Your task to perform on an android device: Go to Yahoo.com Image 0: 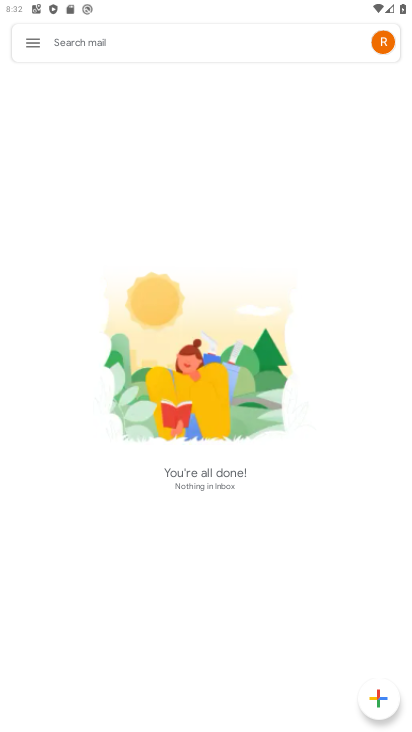
Step 0: click (189, 649)
Your task to perform on an android device: Go to Yahoo.com Image 1: 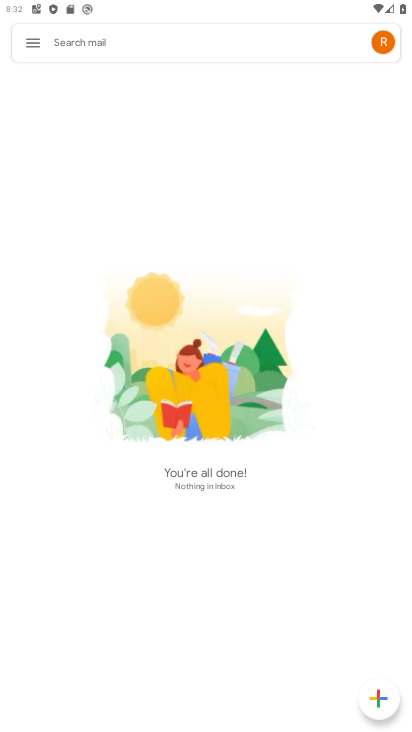
Step 1: press home button
Your task to perform on an android device: Go to Yahoo.com Image 2: 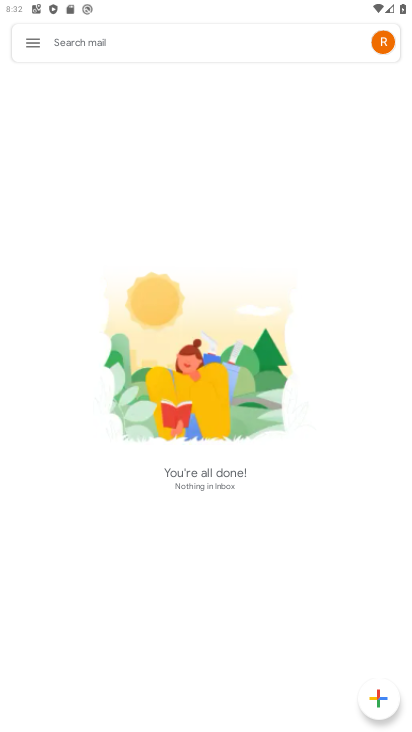
Step 2: click (351, 46)
Your task to perform on an android device: Go to Yahoo.com Image 3: 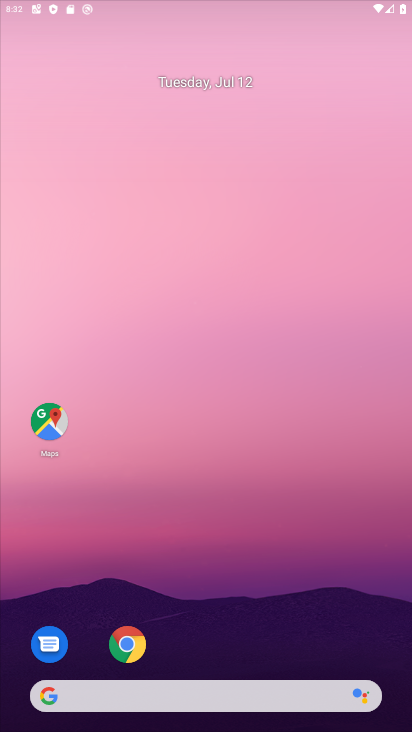
Step 3: drag from (177, 593) to (256, 37)
Your task to perform on an android device: Go to Yahoo.com Image 4: 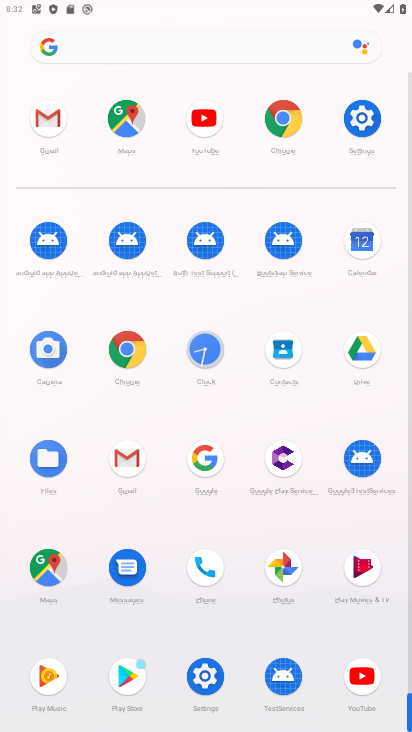
Step 4: click (283, 113)
Your task to perform on an android device: Go to Yahoo.com Image 5: 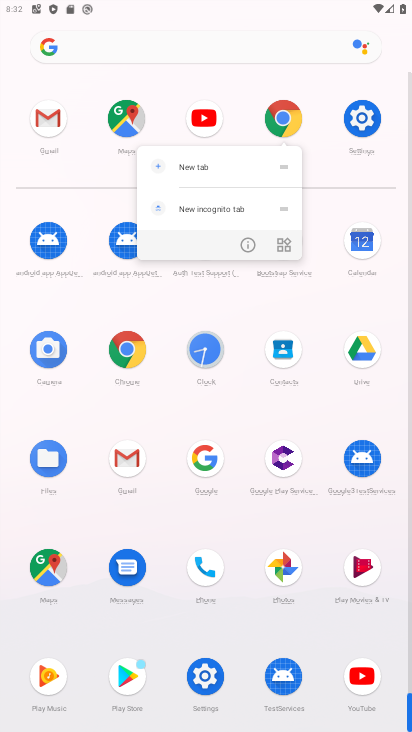
Step 5: click (248, 241)
Your task to perform on an android device: Go to Yahoo.com Image 6: 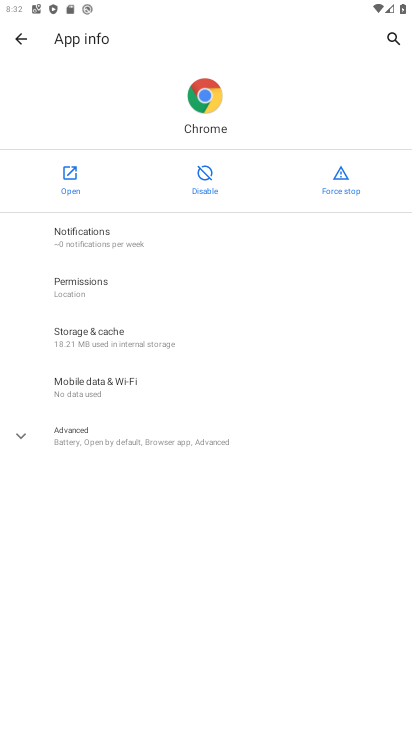
Step 6: click (60, 184)
Your task to perform on an android device: Go to Yahoo.com Image 7: 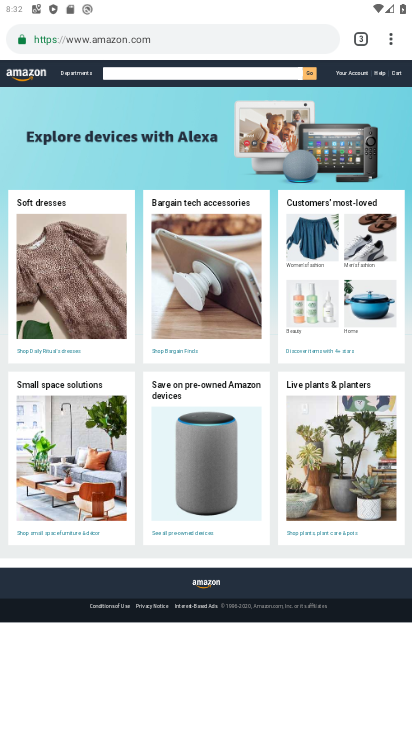
Step 7: click (392, 42)
Your task to perform on an android device: Go to Yahoo.com Image 8: 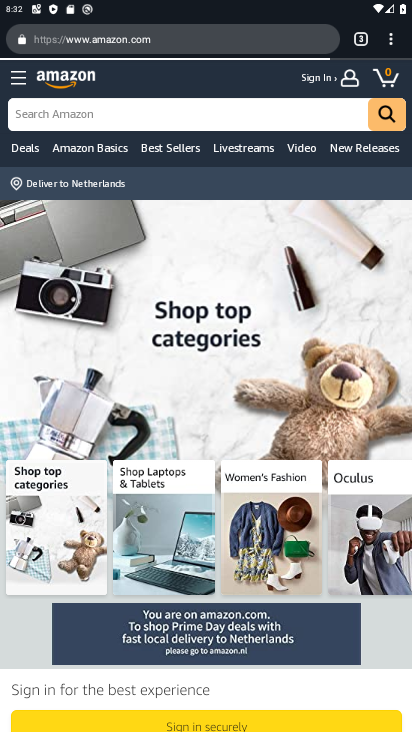
Step 8: click (122, 36)
Your task to perform on an android device: Go to Yahoo.com Image 9: 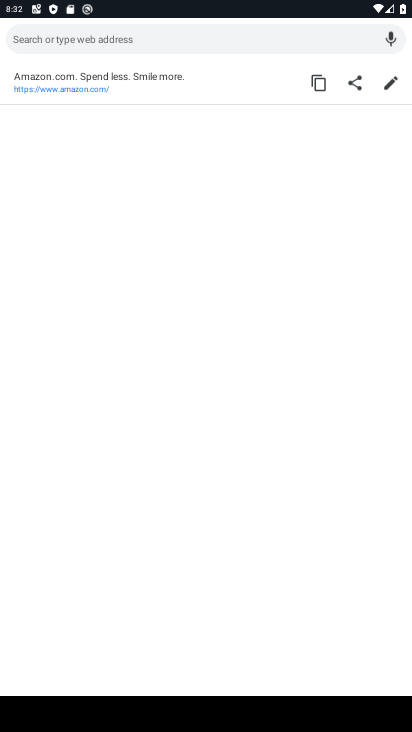
Step 9: type "yahoo.com"
Your task to perform on an android device: Go to Yahoo.com Image 10: 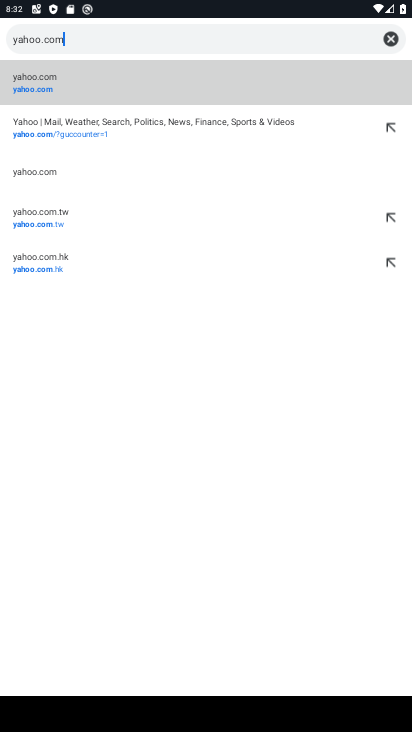
Step 10: click (46, 82)
Your task to perform on an android device: Go to Yahoo.com Image 11: 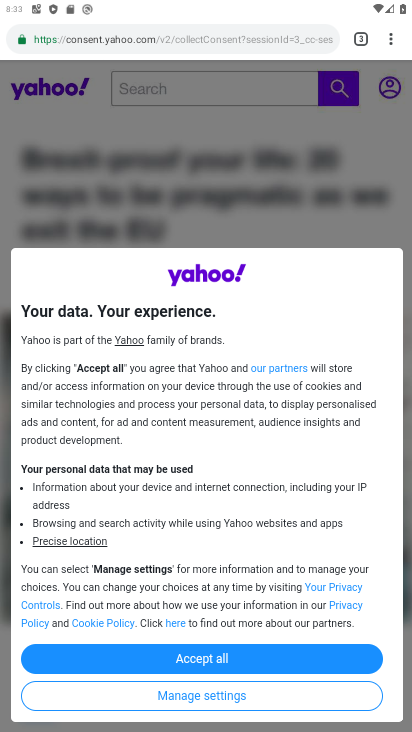
Step 11: task complete